Your task to perform on an android device: check out phone information Image 0: 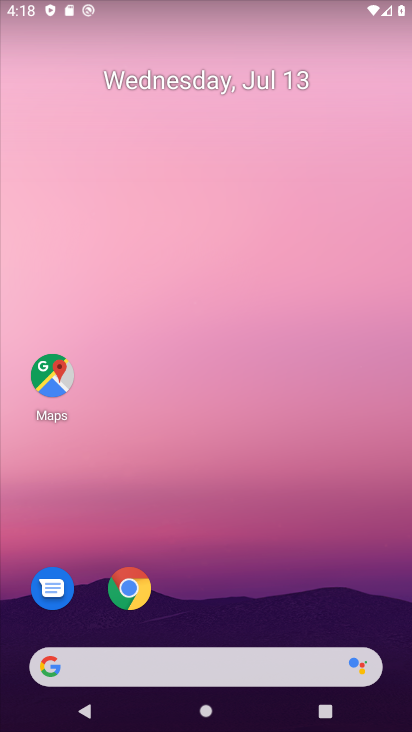
Step 0: drag from (37, 707) to (193, 134)
Your task to perform on an android device: check out phone information Image 1: 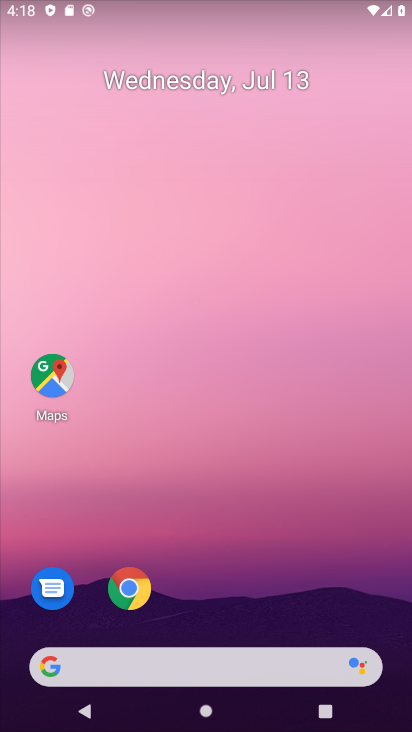
Step 1: drag from (33, 706) to (221, 31)
Your task to perform on an android device: check out phone information Image 2: 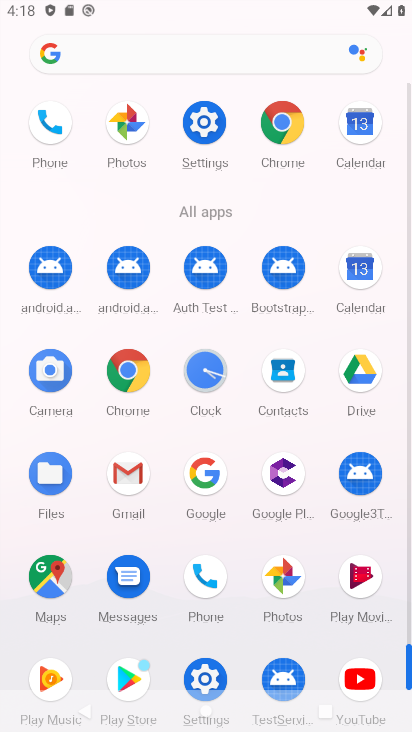
Step 2: click (196, 586)
Your task to perform on an android device: check out phone information Image 3: 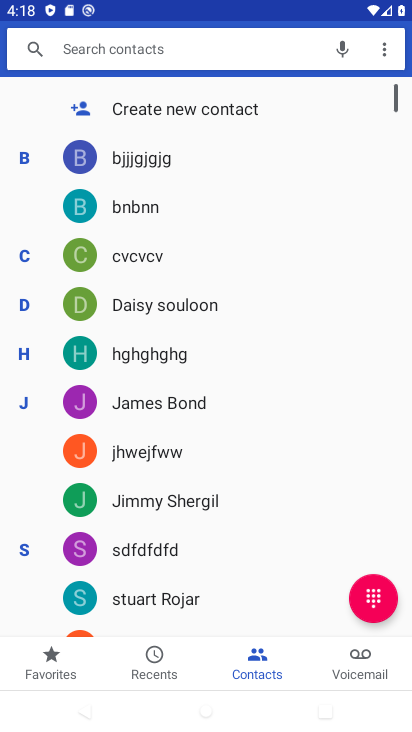
Step 3: task complete